Your task to perform on an android device: open the mobile data screen to see how much data has been used Image 0: 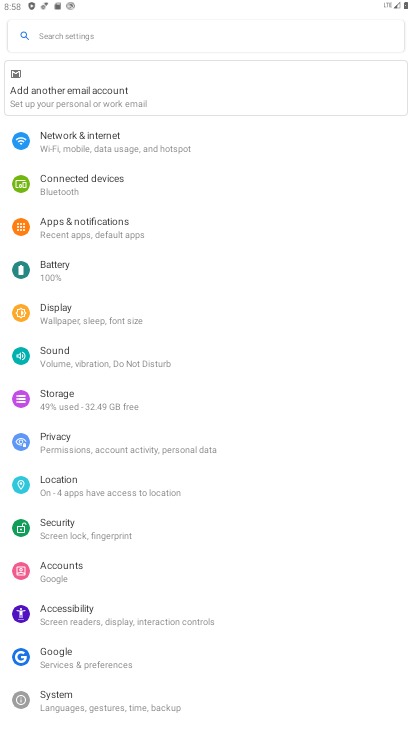
Step 0: press home button
Your task to perform on an android device: open the mobile data screen to see how much data has been used Image 1: 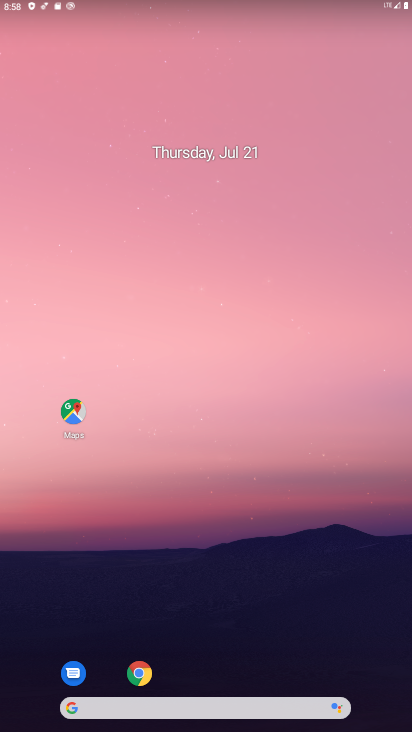
Step 1: drag from (179, 667) to (222, 216)
Your task to perform on an android device: open the mobile data screen to see how much data has been used Image 2: 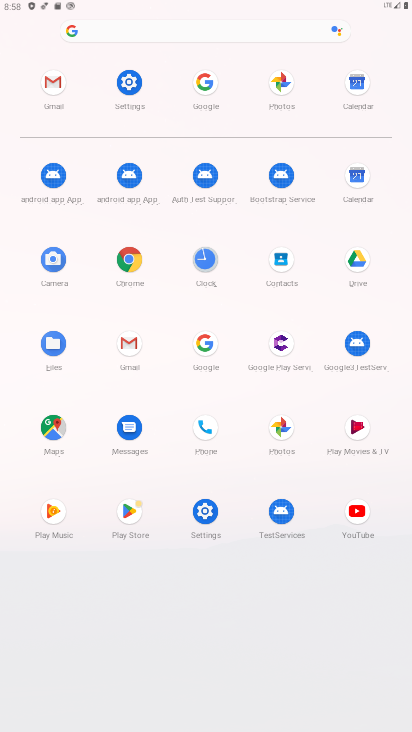
Step 2: click (140, 81)
Your task to perform on an android device: open the mobile data screen to see how much data has been used Image 3: 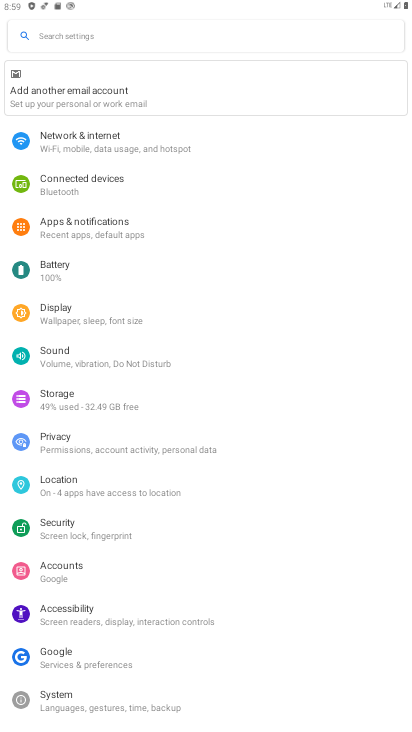
Step 3: click (108, 145)
Your task to perform on an android device: open the mobile data screen to see how much data has been used Image 4: 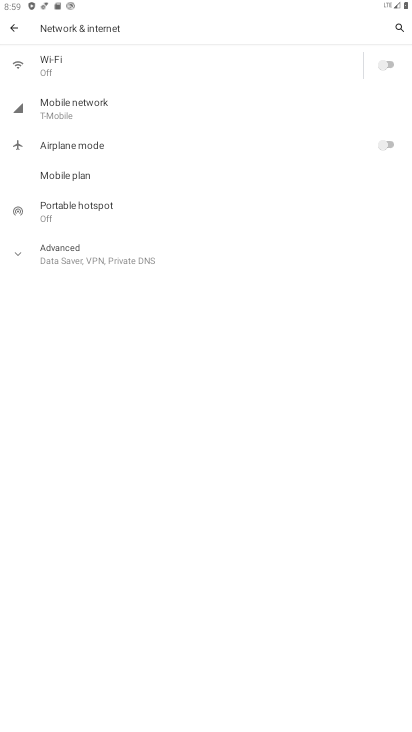
Step 4: click (108, 114)
Your task to perform on an android device: open the mobile data screen to see how much data has been used Image 5: 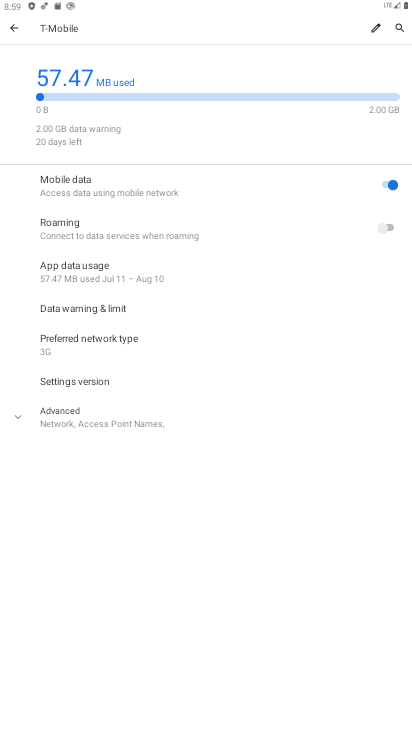
Step 5: click (123, 285)
Your task to perform on an android device: open the mobile data screen to see how much data has been used Image 6: 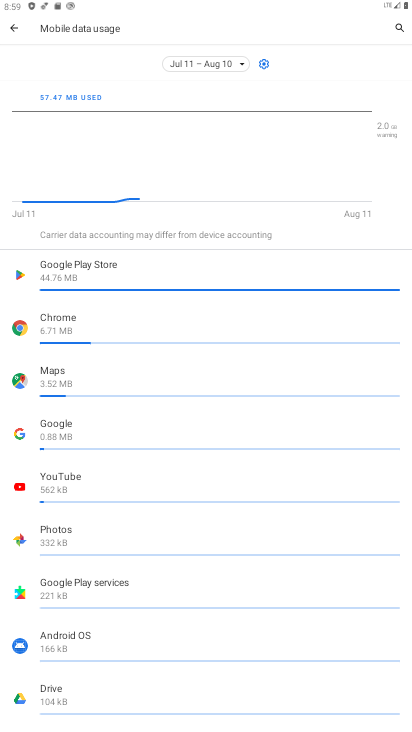
Step 6: task complete